Your task to perform on an android device: What is the news today? Image 0: 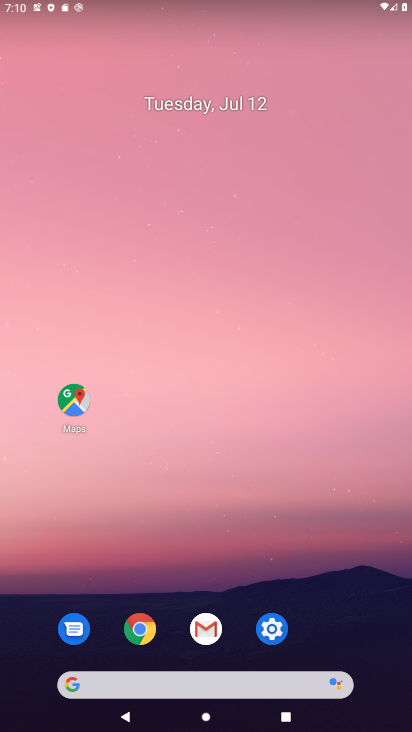
Step 0: drag from (214, 705) to (321, 334)
Your task to perform on an android device: What is the news today? Image 1: 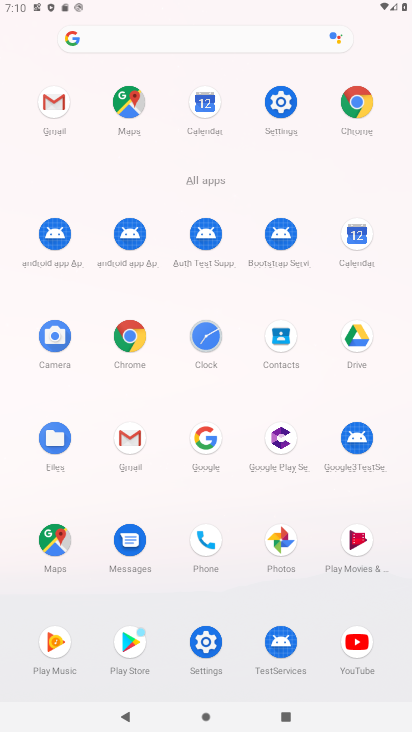
Step 1: click (140, 37)
Your task to perform on an android device: What is the news today? Image 2: 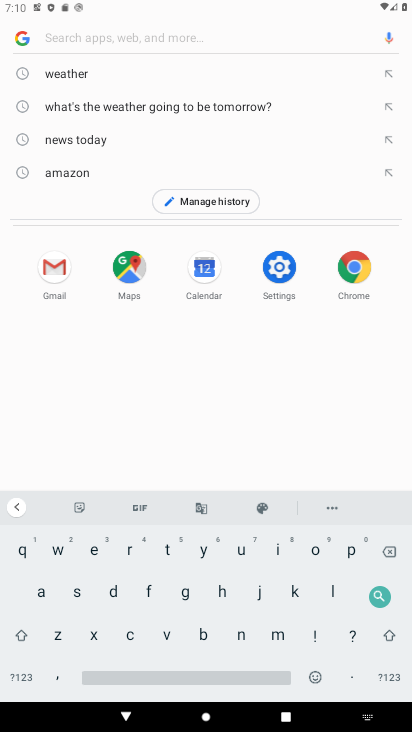
Step 2: click (106, 133)
Your task to perform on an android device: What is the news today? Image 3: 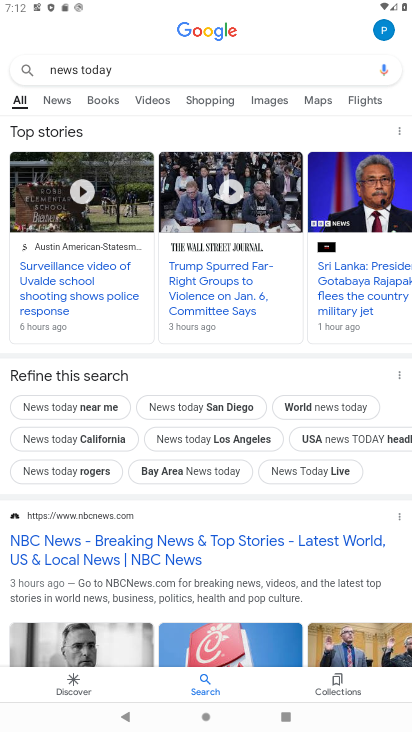
Step 3: task complete